Your task to perform on an android device: check the backup settings in the google photos Image 0: 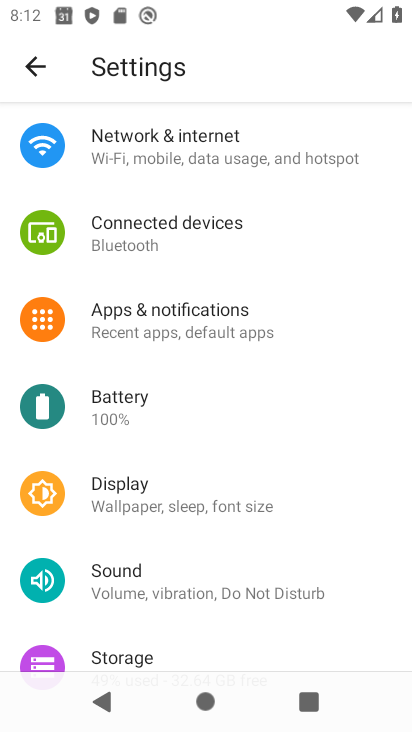
Step 0: press home button
Your task to perform on an android device: check the backup settings in the google photos Image 1: 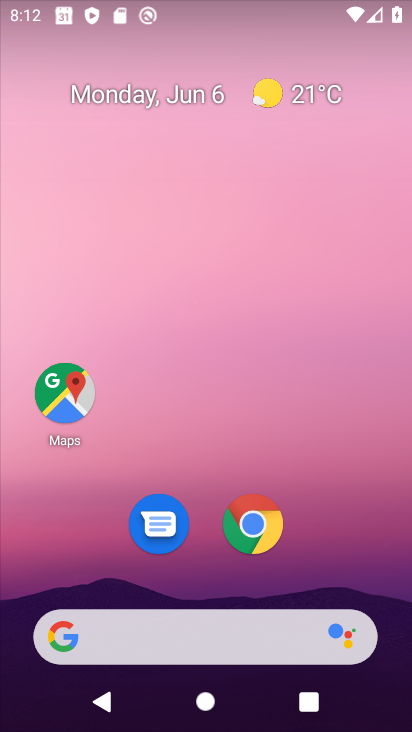
Step 1: drag from (318, 549) to (270, 24)
Your task to perform on an android device: check the backup settings in the google photos Image 2: 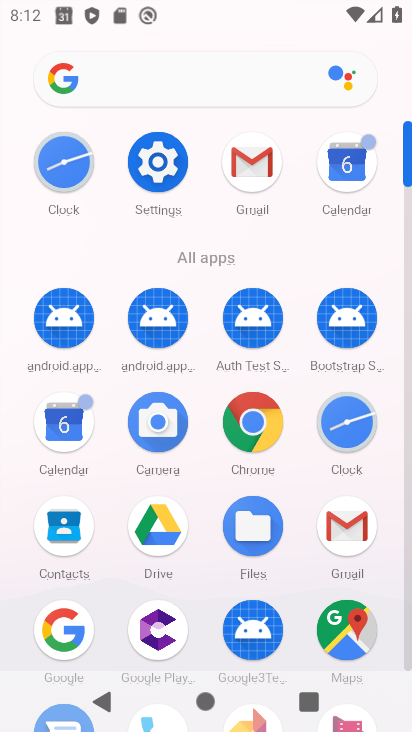
Step 2: drag from (202, 529) to (211, 408)
Your task to perform on an android device: check the backup settings in the google photos Image 3: 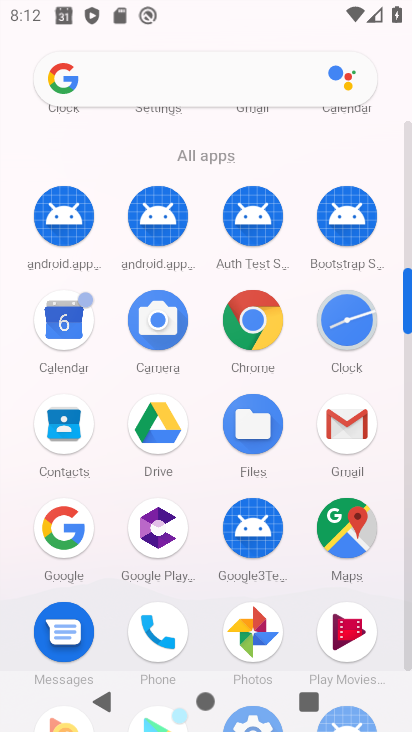
Step 3: click (250, 624)
Your task to perform on an android device: check the backup settings in the google photos Image 4: 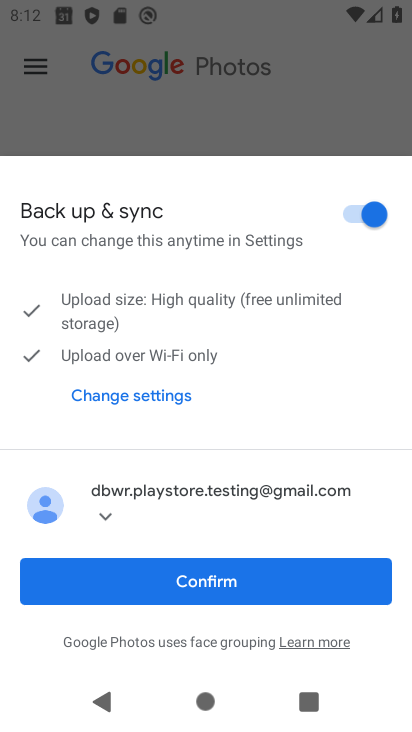
Step 4: click (268, 590)
Your task to perform on an android device: check the backup settings in the google photos Image 5: 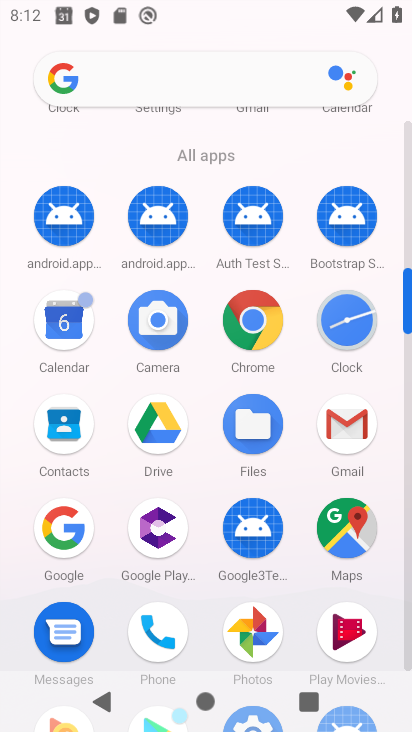
Step 5: click (261, 617)
Your task to perform on an android device: check the backup settings in the google photos Image 6: 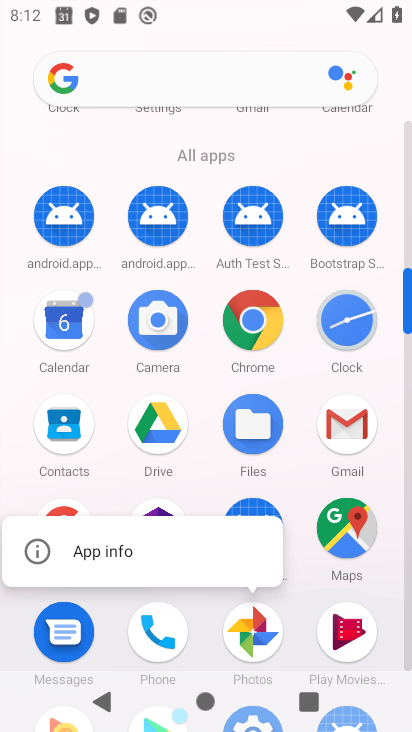
Step 6: click (255, 645)
Your task to perform on an android device: check the backup settings in the google photos Image 7: 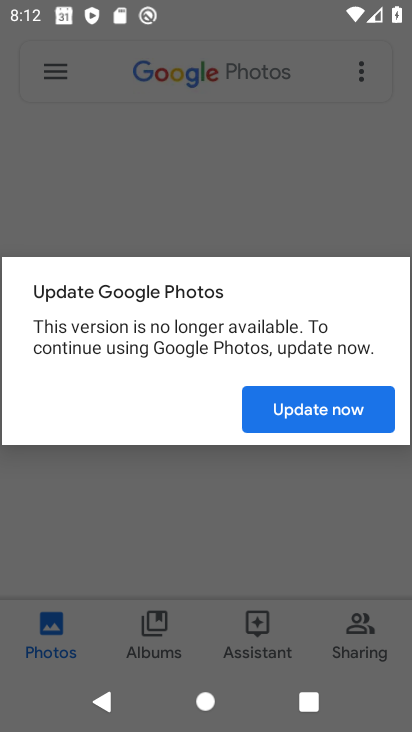
Step 7: click (331, 407)
Your task to perform on an android device: check the backup settings in the google photos Image 8: 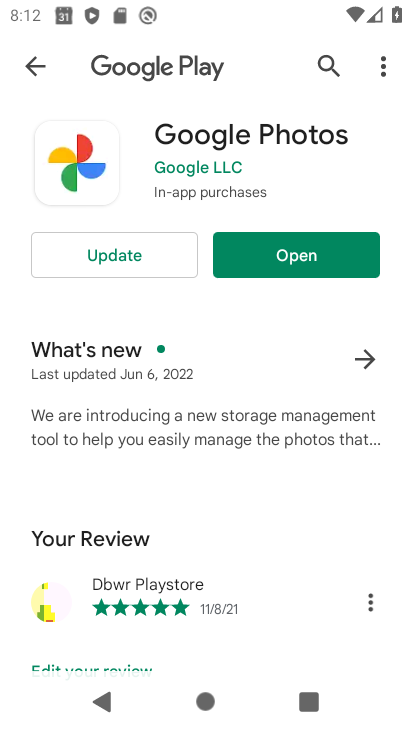
Step 8: click (294, 256)
Your task to perform on an android device: check the backup settings in the google photos Image 9: 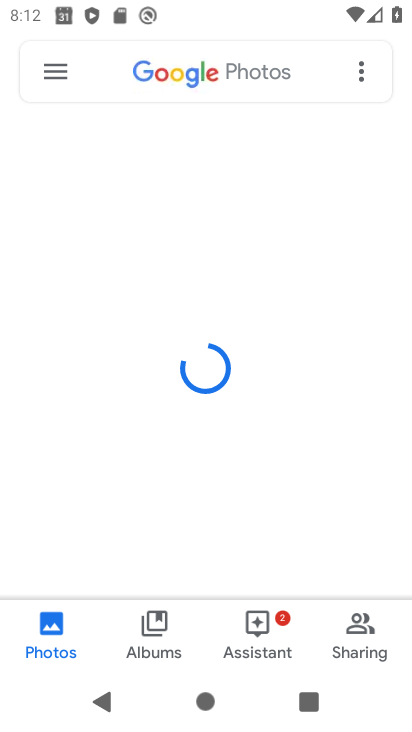
Step 9: click (50, 70)
Your task to perform on an android device: check the backup settings in the google photos Image 10: 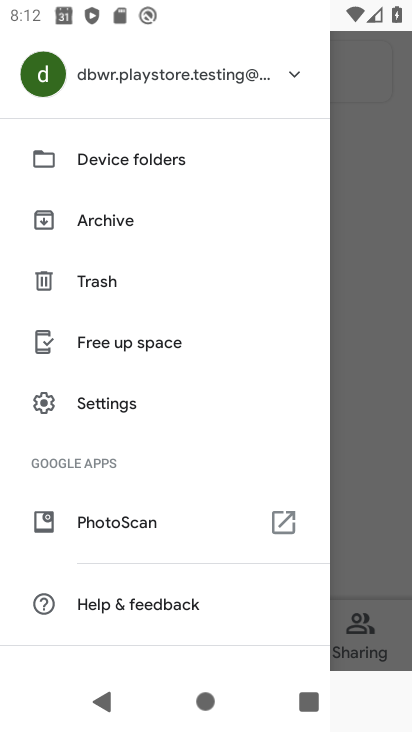
Step 10: click (97, 389)
Your task to perform on an android device: check the backup settings in the google photos Image 11: 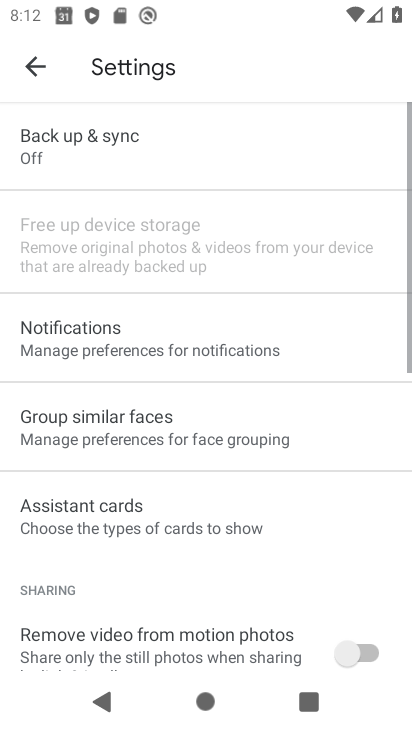
Step 11: click (127, 125)
Your task to perform on an android device: check the backup settings in the google photos Image 12: 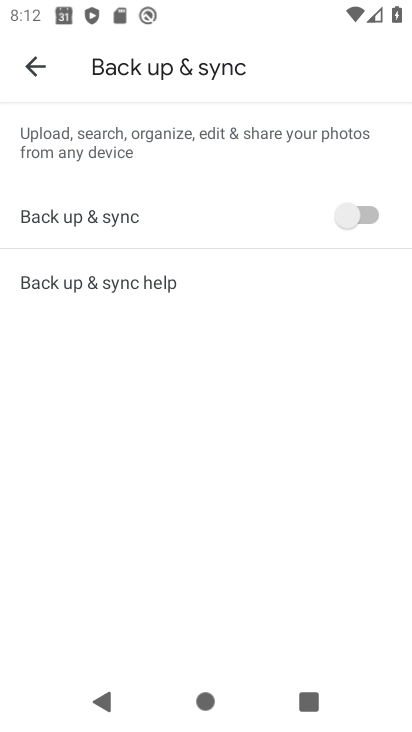
Step 12: click (354, 208)
Your task to perform on an android device: check the backup settings in the google photos Image 13: 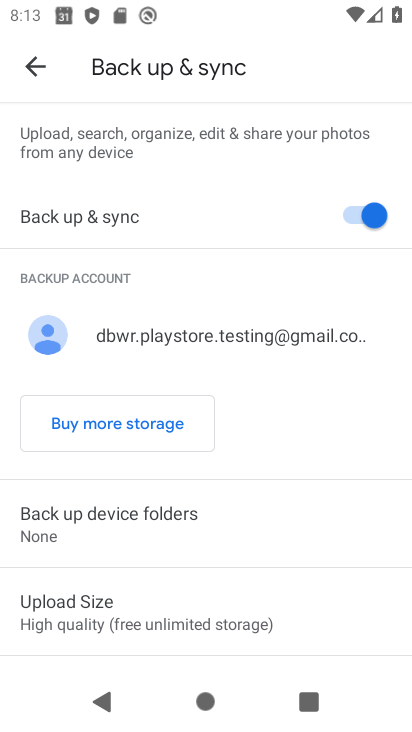
Step 13: task complete